Your task to perform on an android device: uninstall "Upside-Cash back on gas & food" Image 0: 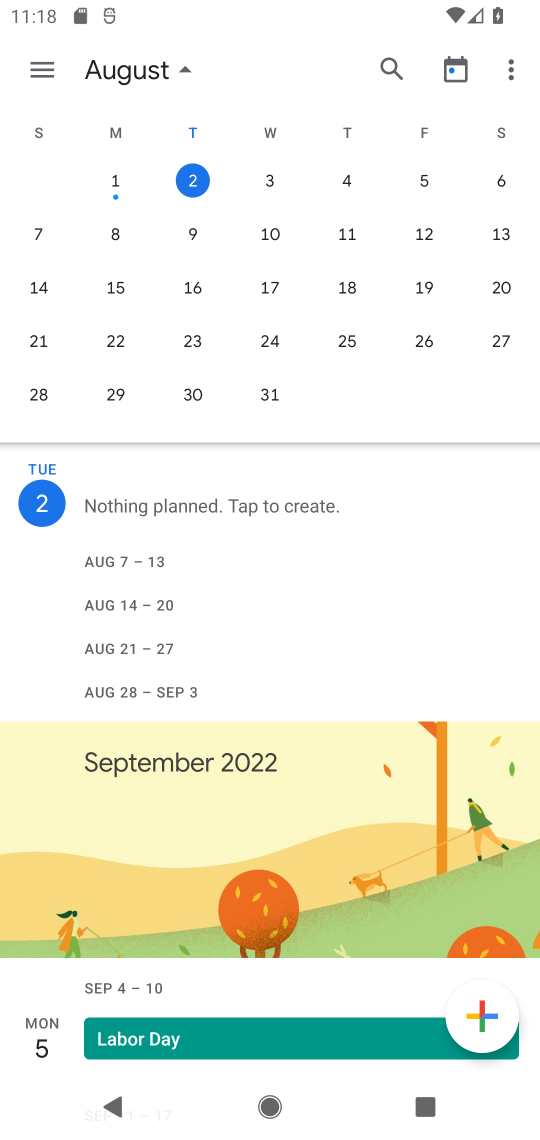
Step 0: press home button
Your task to perform on an android device: uninstall "Upside-Cash back on gas & food" Image 1: 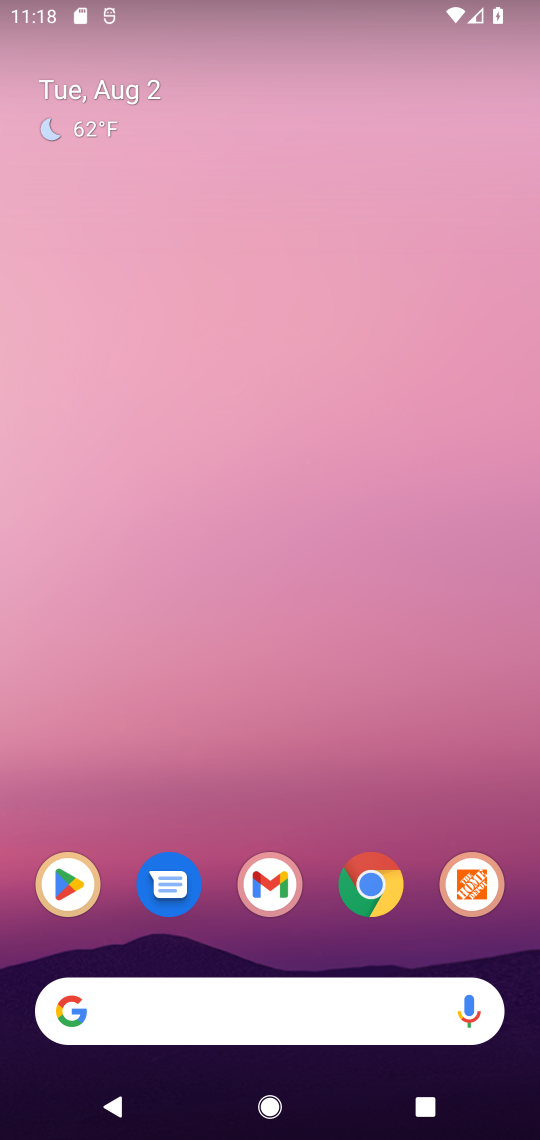
Step 1: click (75, 892)
Your task to perform on an android device: uninstall "Upside-Cash back on gas & food" Image 2: 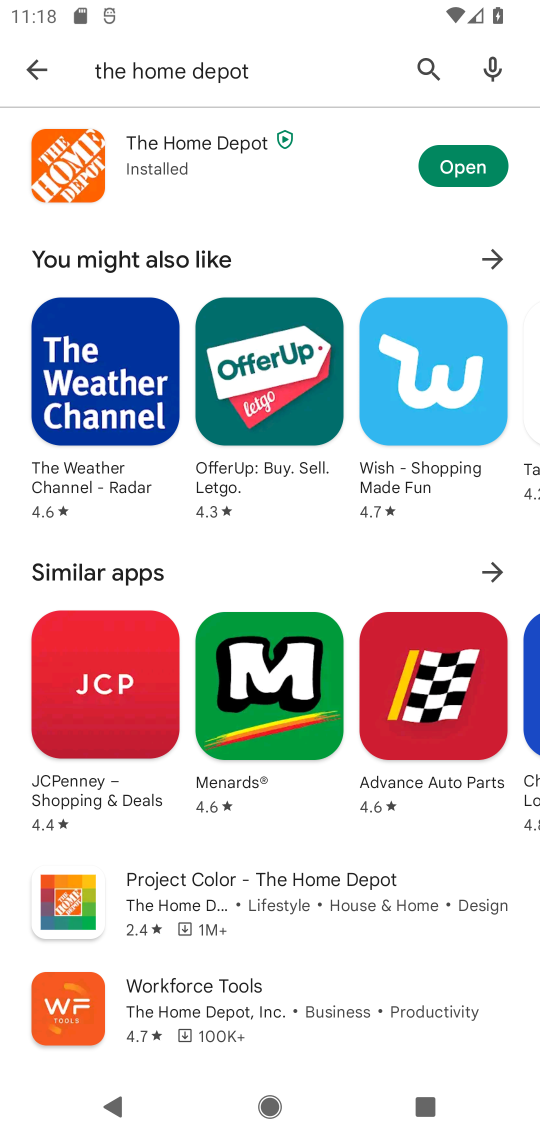
Step 2: click (216, 74)
Your task to perform on an android device: uninstall "Upside-Cash back on gas & food" Image 3: 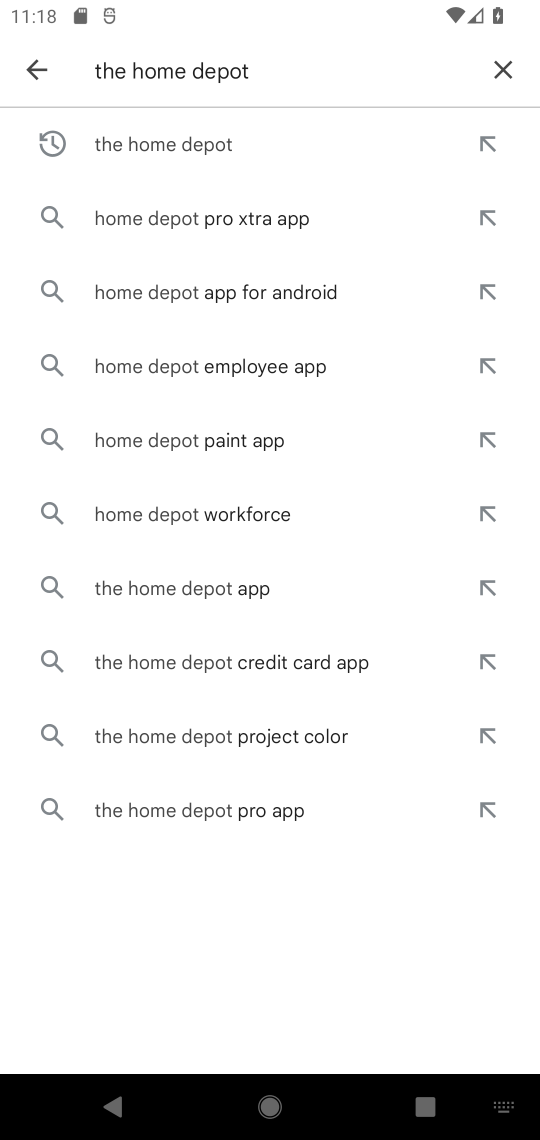
Step 3: click (503, 68)
Your task to perform on an android device: uninstall "Upside-Cash back on gas & food" Image 4: 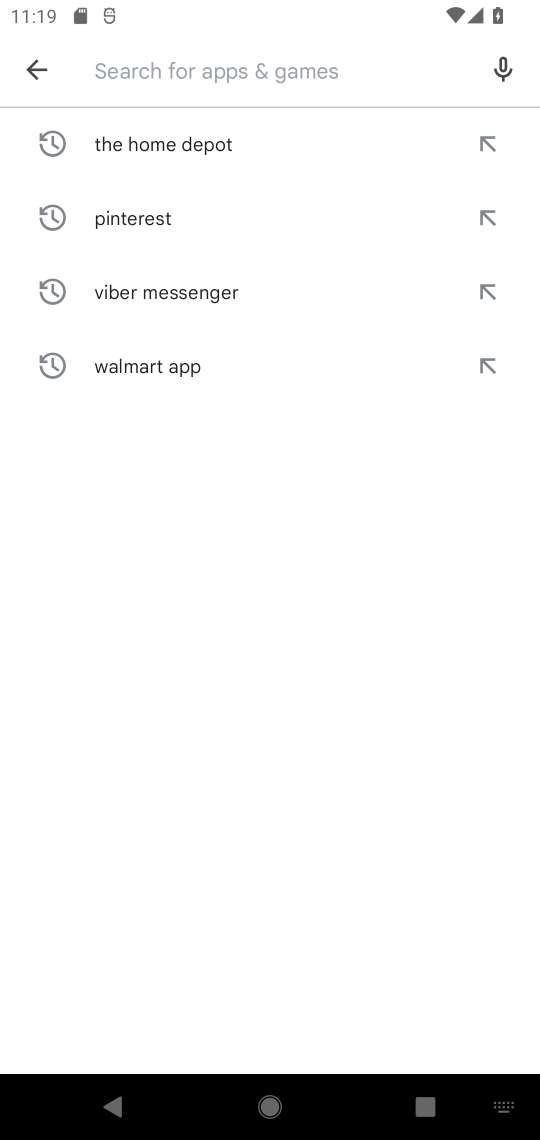
Step 4: type "Upside"
Your task to perform on an android device: uninstall "Upside-Cash back on gas & food" Image 5: 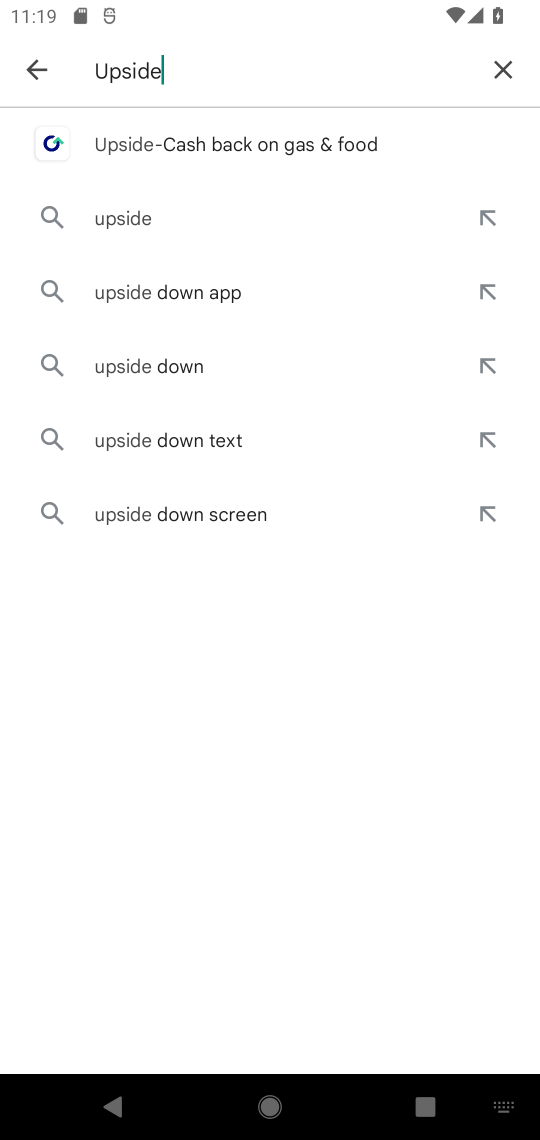
Step 5: click (148, 152)
Your task to perform on an android device: uninstall "Upside-Cash back on gas & food" Image 6: 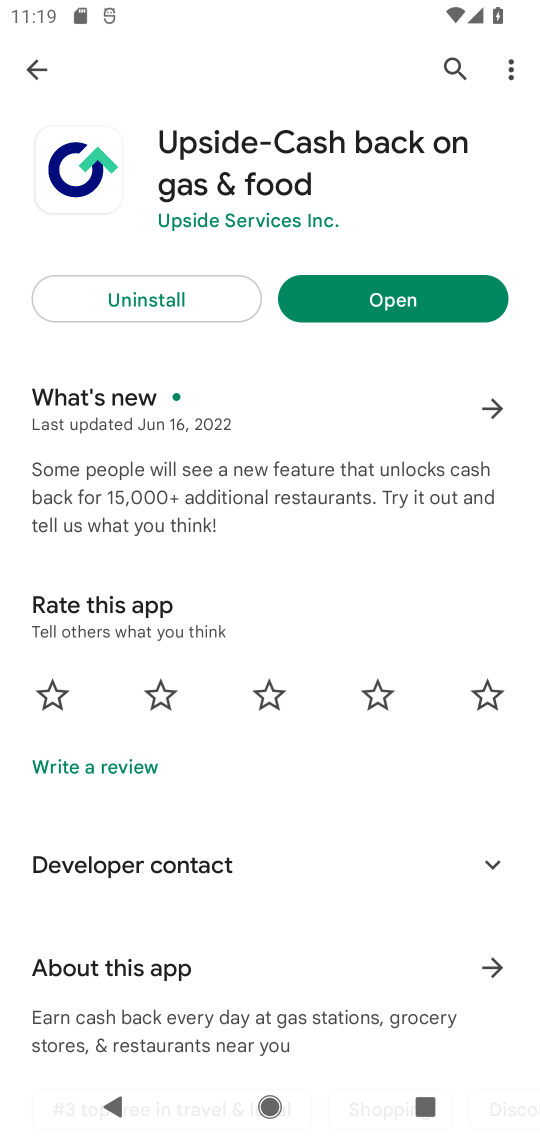
Step 6: click (186, 303)
Your task to perform on an android device: uninstall "Upside-Cash back on gas & food" Image 7: 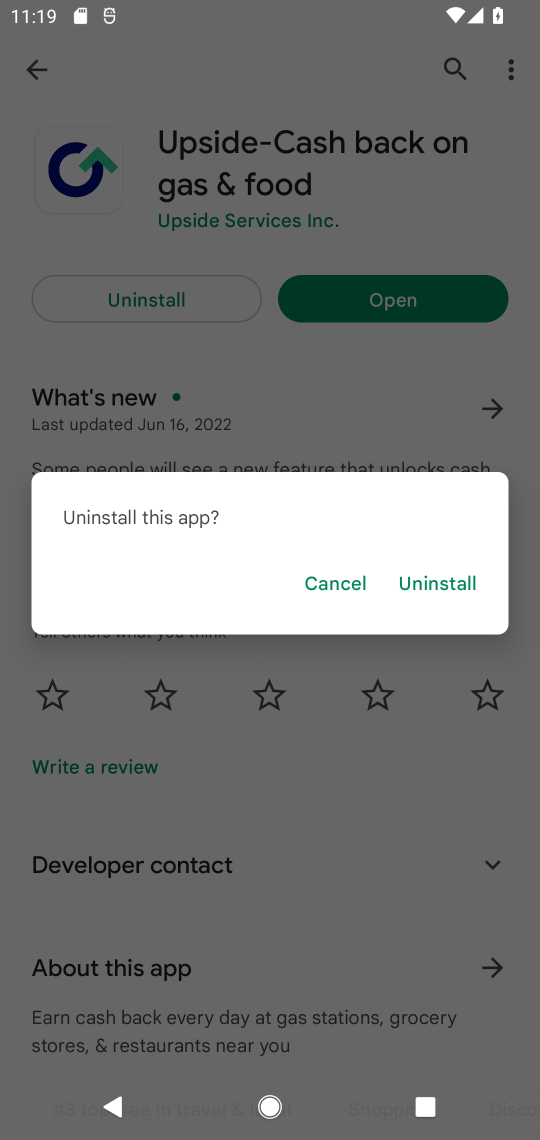
Step 7: click (451, 585)
Your task to perform on an android device: uninstall "Upside-Cash back on gas & food" Image 8: 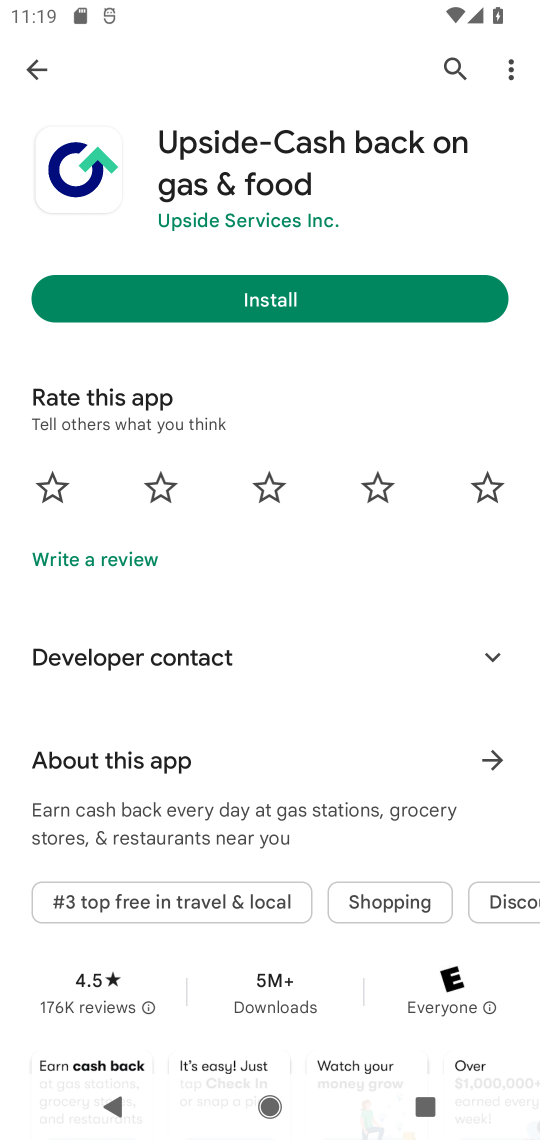
Step 8: task complete